Your task to perform on an android device: Search for "macbook" on ebay, select the first entry, and add it to the cart. Image 0: 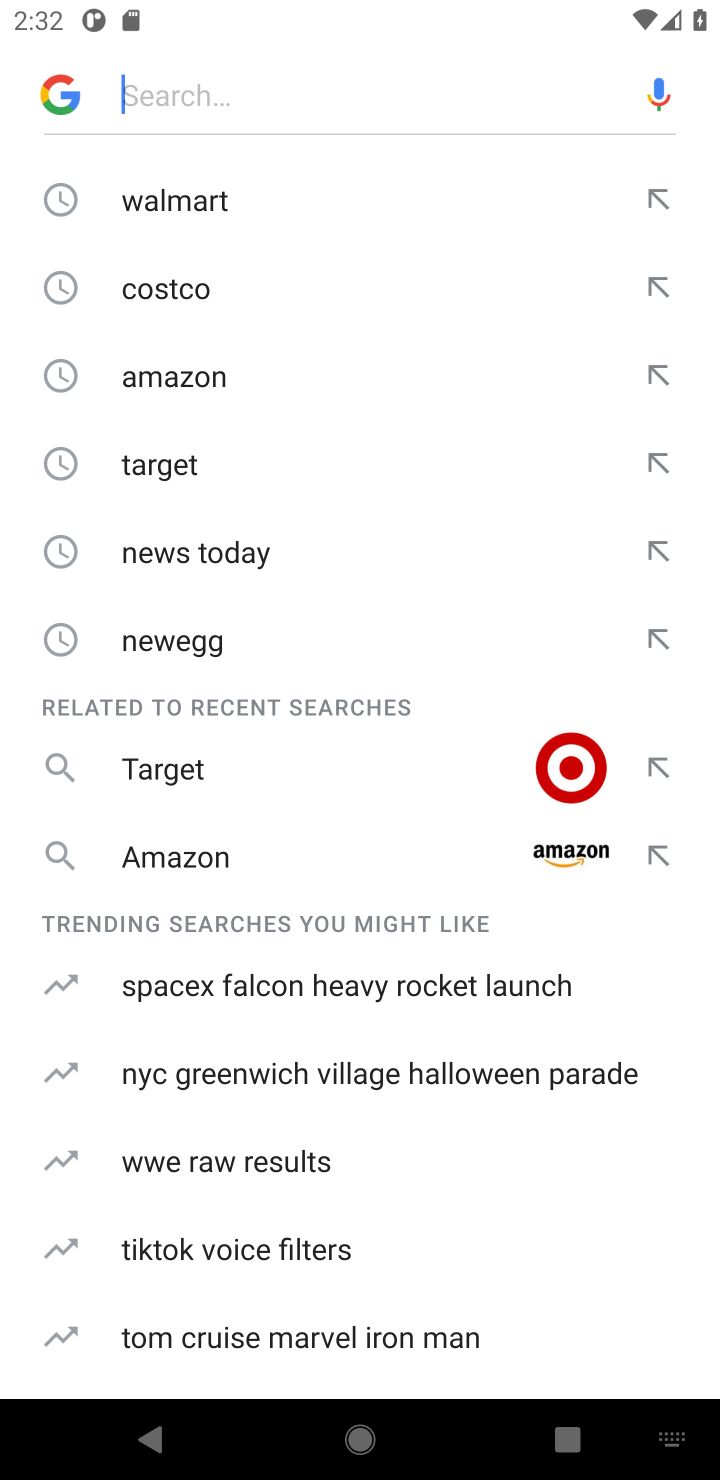
Step 0: type "ebay"
Your task to perform on an android device: Search for "macbook" on ebay, select the first entry, and add it to the cart. Image 1: 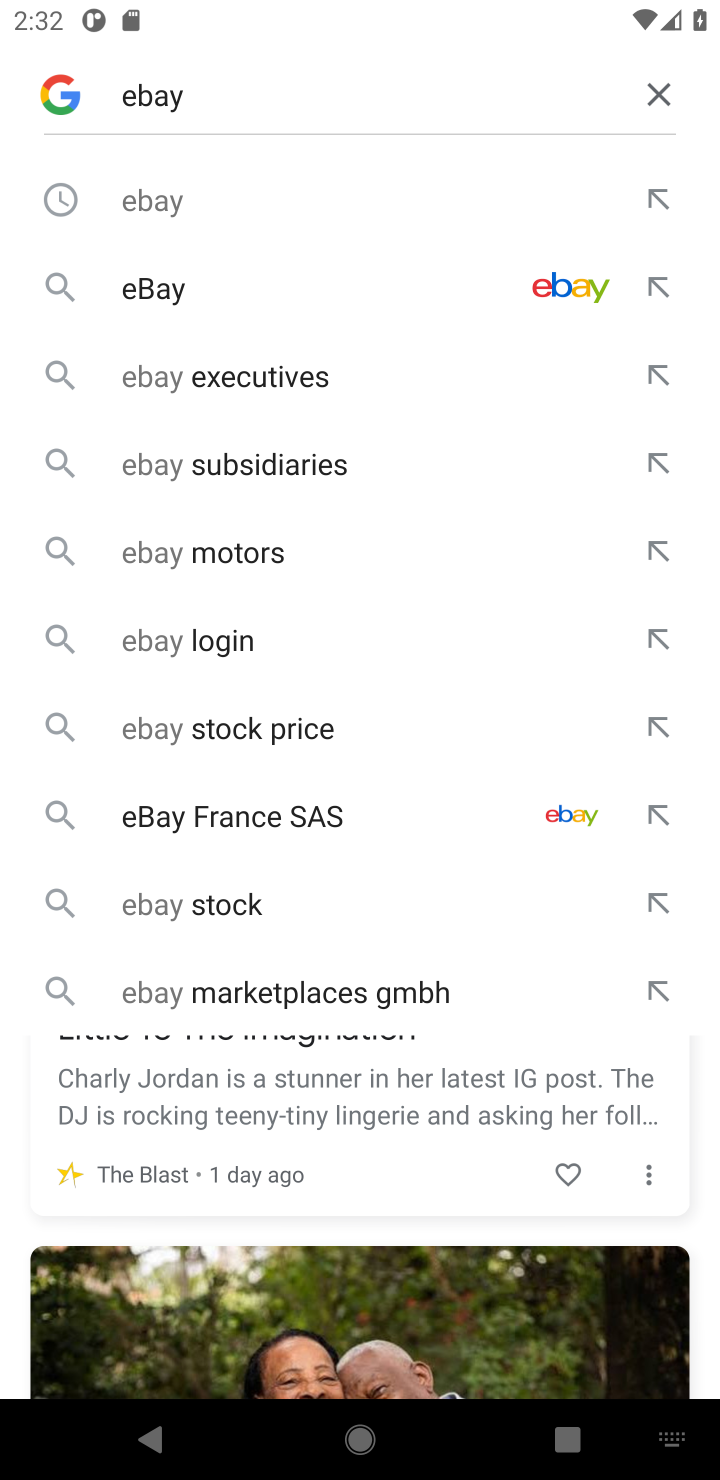
Step 1: type ""
Your task to perform on an android device: Search for "macbook" on ebay, select the first entry, and add it to the cart. Image 2: 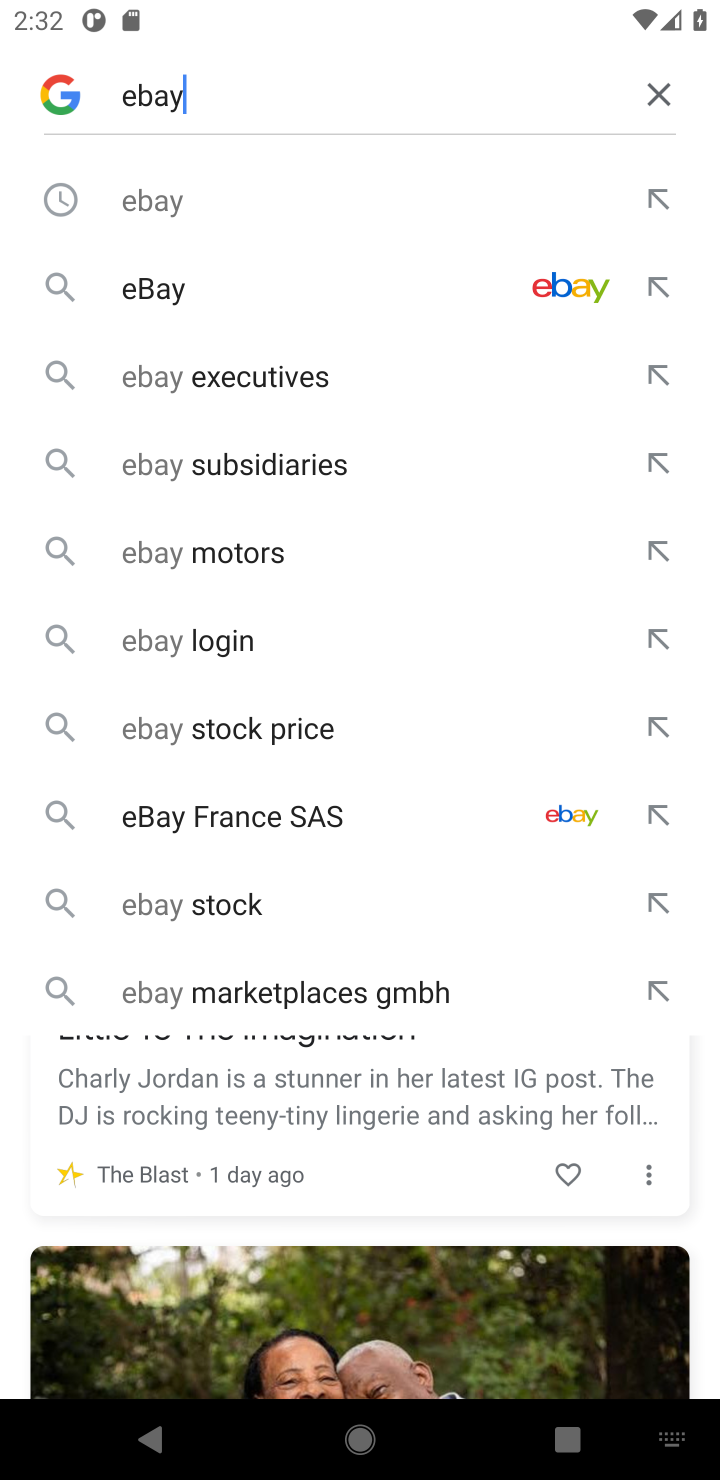
Step 2: click (215, 186)
Your task to perform on an android device: Search for "macbook" on ebay, select the first entry, and add it to the cart. Image 3: 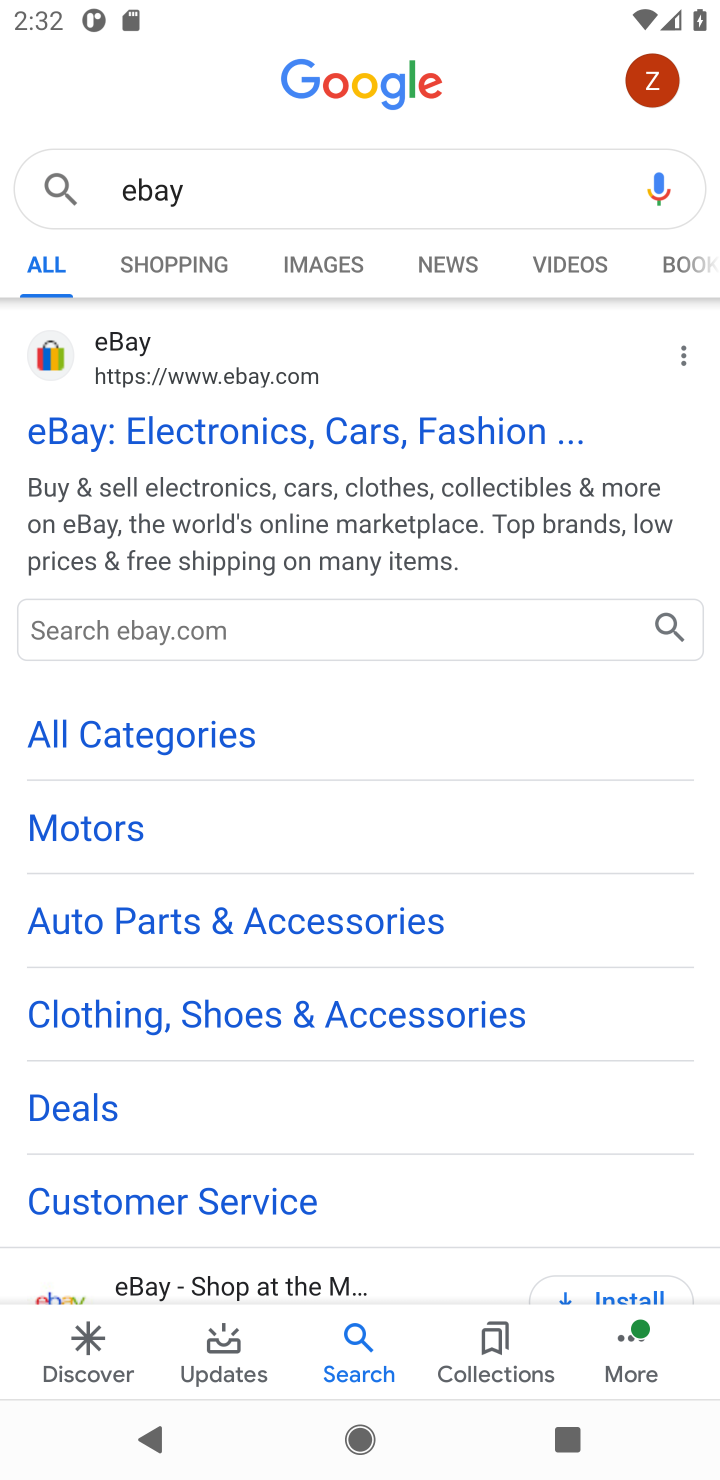
Step 3: click (193, 335)
Your task to perform on an android device: Search for "macbook" on ebay, select the first entry, and add it to the cart. Image 4: 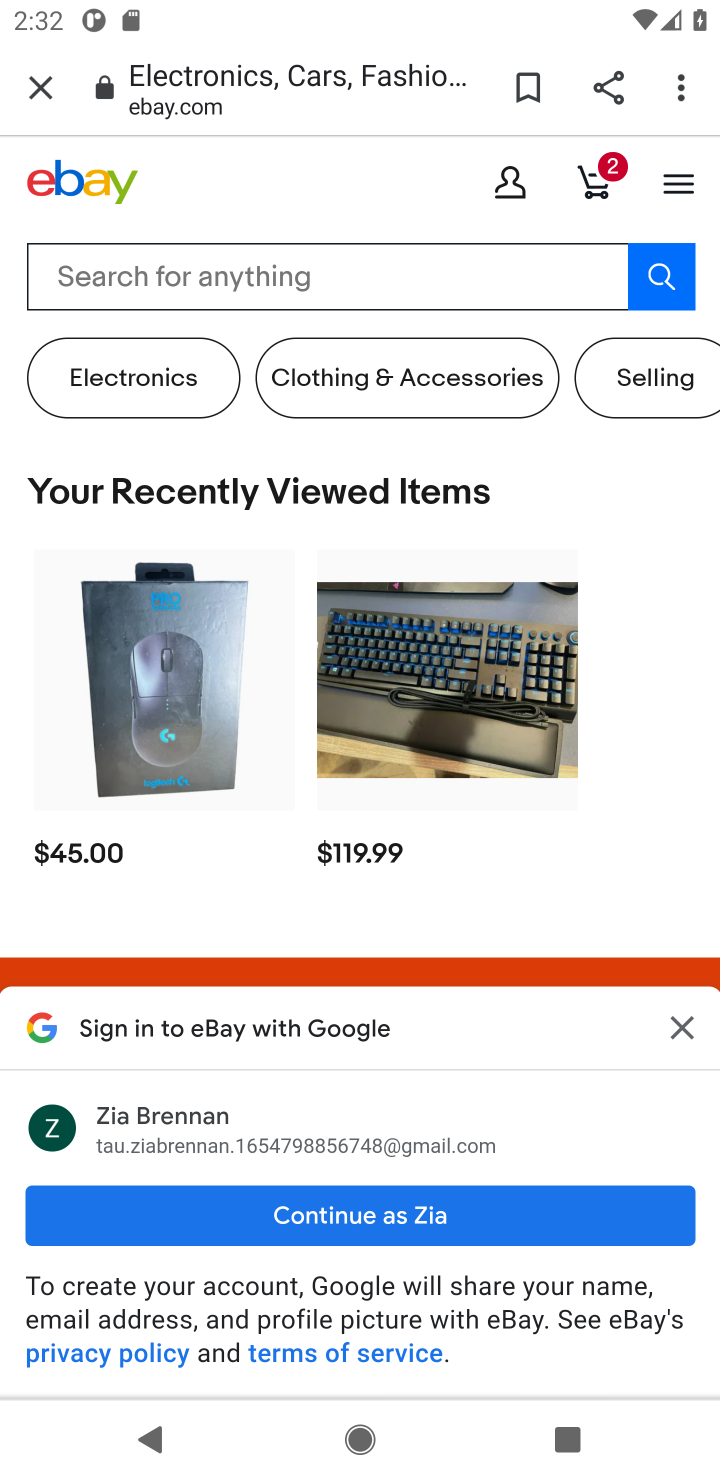
Step 4: click (215, 281)
Your task to perform on an android device: Search for "macbook" on ebay, select the first entry, and add it to the cart. Image 5: 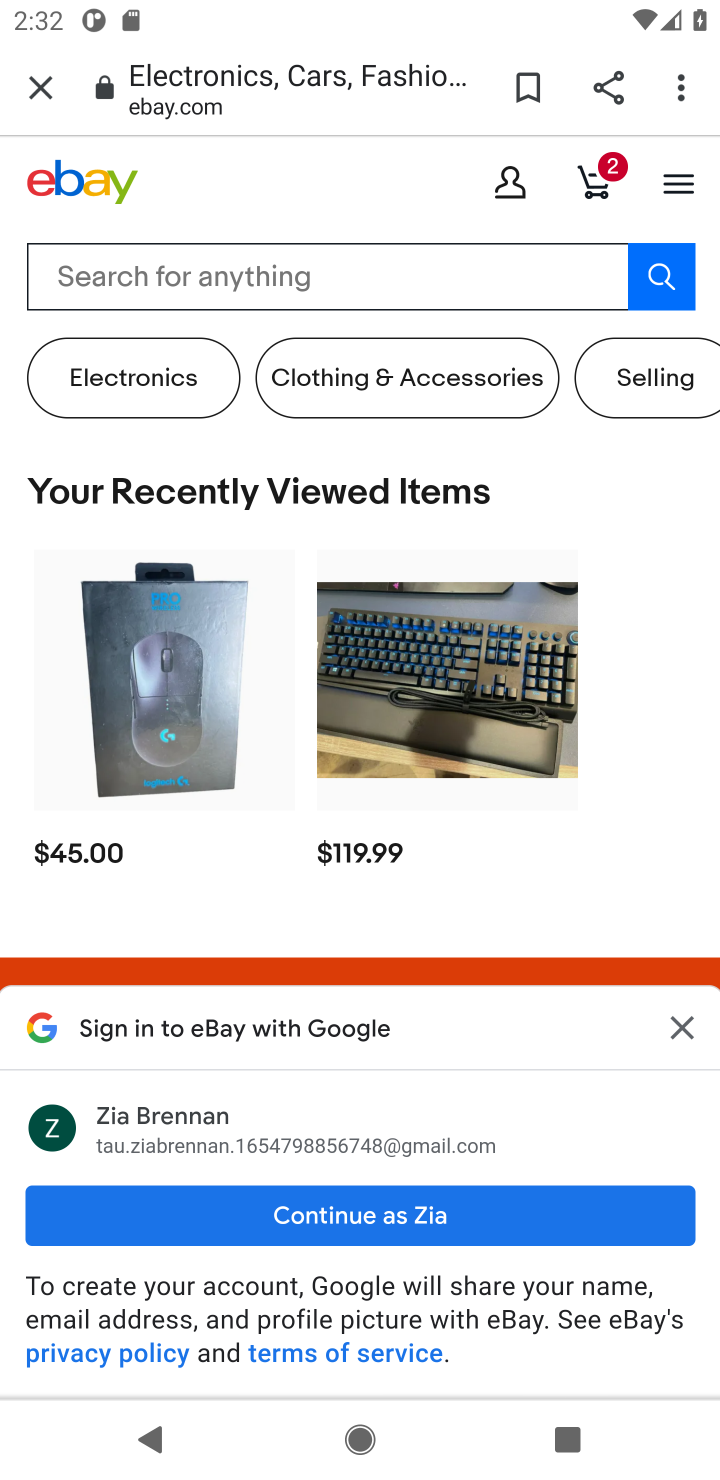
Step 5: click (683, 1026)
Your task to perform on an android device: Search for "macbook" on ebay, select the first entry, and add it to the cart. Image 6: 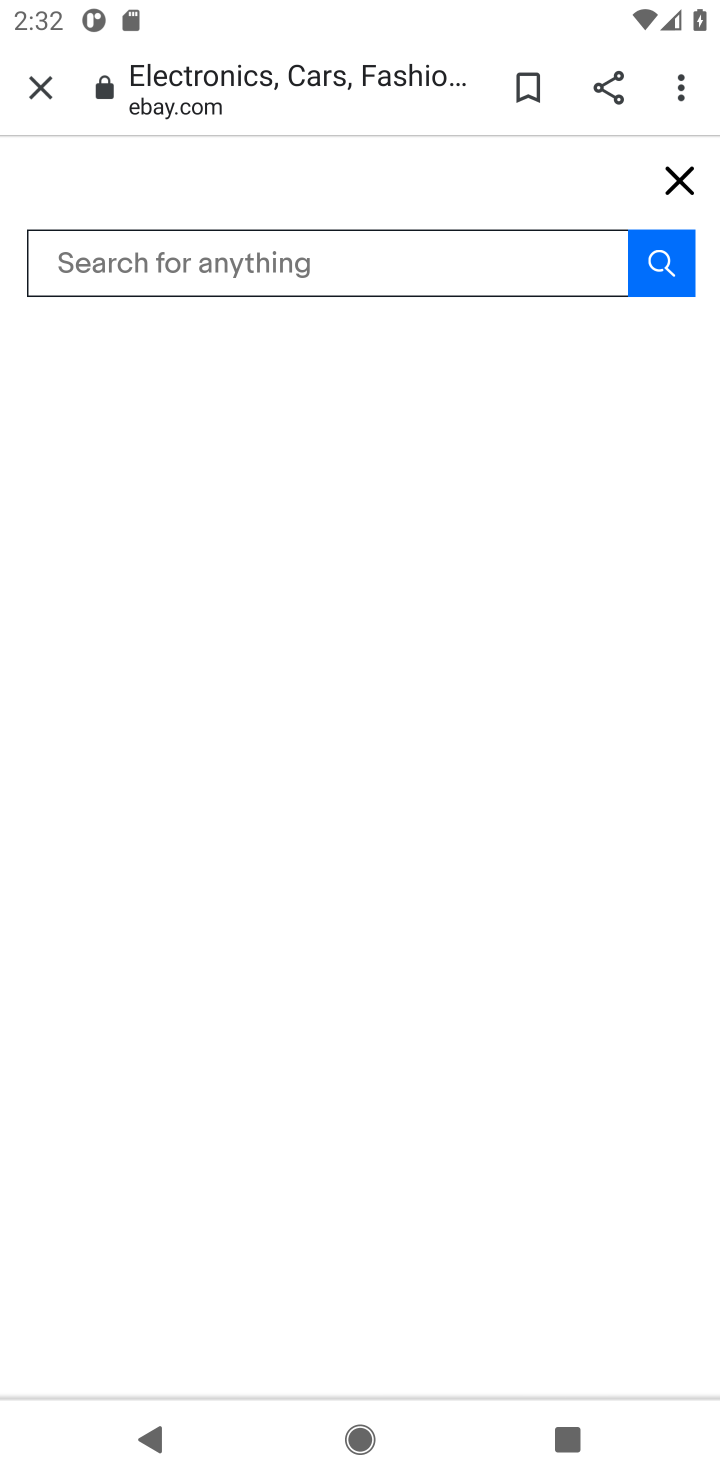
Step 6: click (178, 265)
Your task to perform on an android device: Search for "macbook" on ebay, select the first entry, and add it to the cart. Image 7: 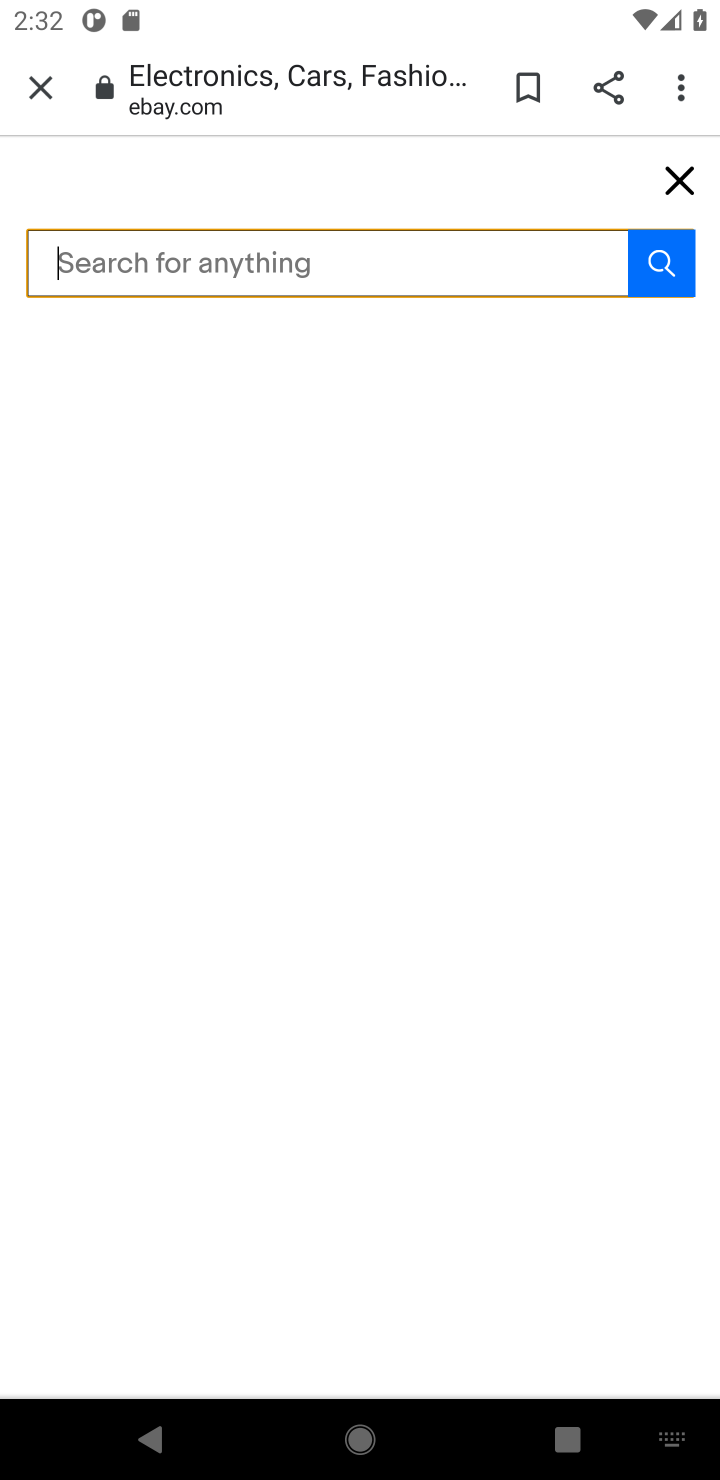
Step 7: type "macbook"
Your task to perform on an android device: Search for "macbook" on ebay, select the first entry, and add it to the cart. Image 8: 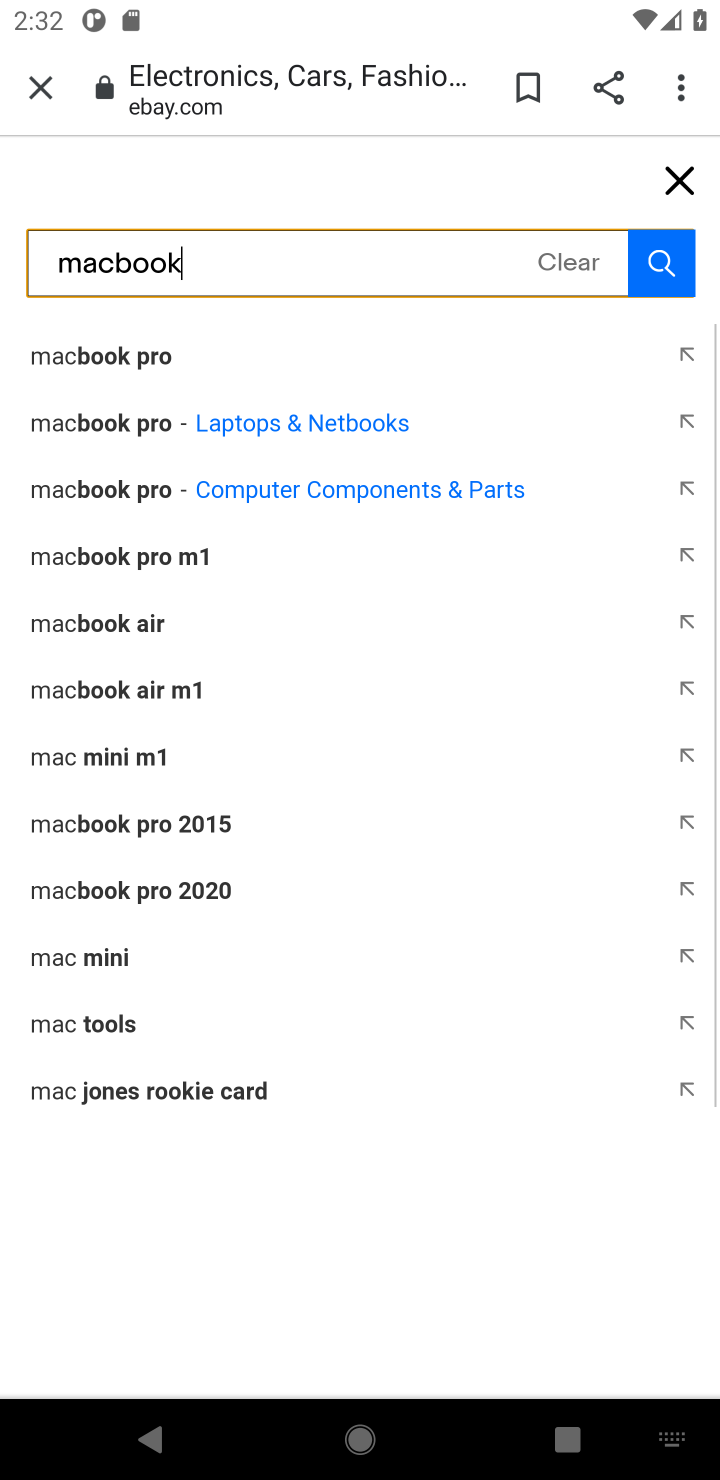
Step 8: type ""
Your task to perform on an android device: Search for "macbook" on ebay, select the first entry, and add it to the cart. Image 9: 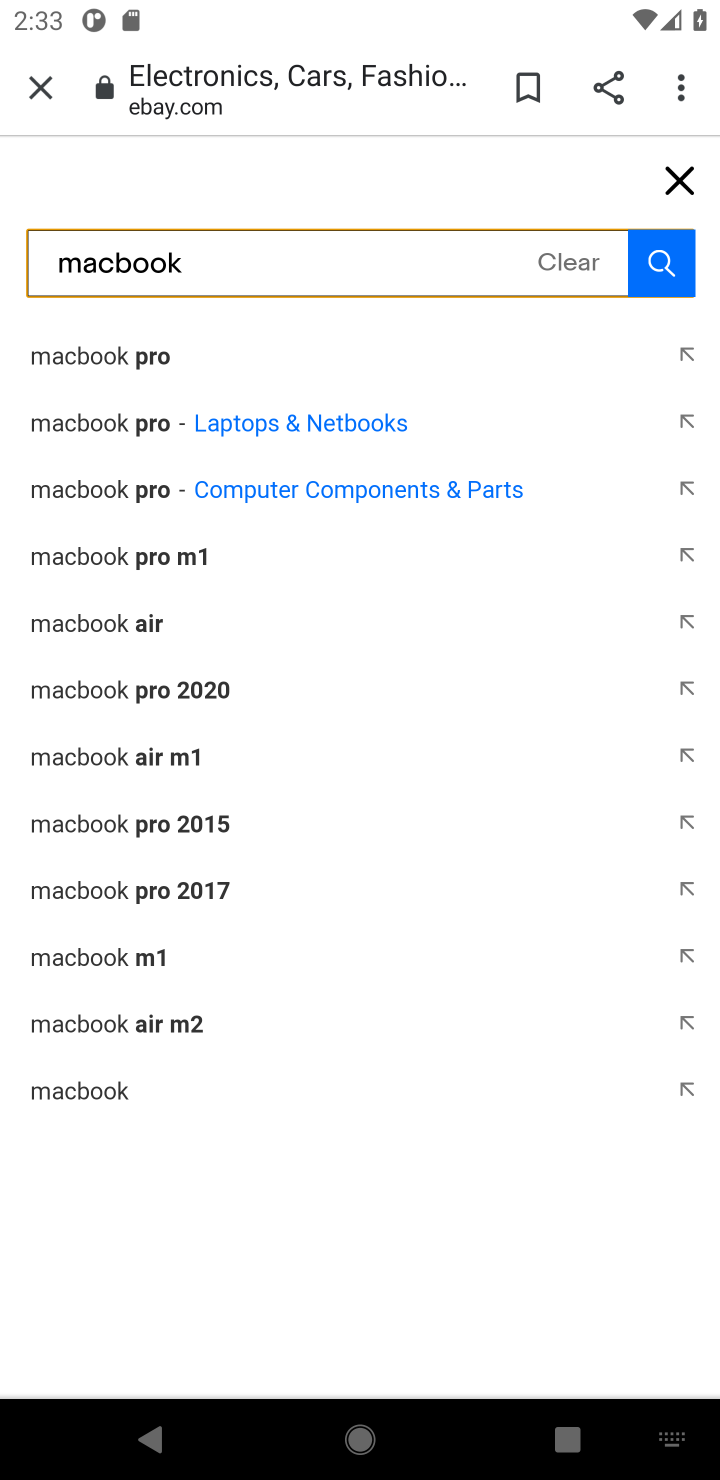
Step 9: click (261, 422)
Your task to perform on an android device: Search for "macbook" on ebay, select the first entry, and add it to the cart. Image 10: 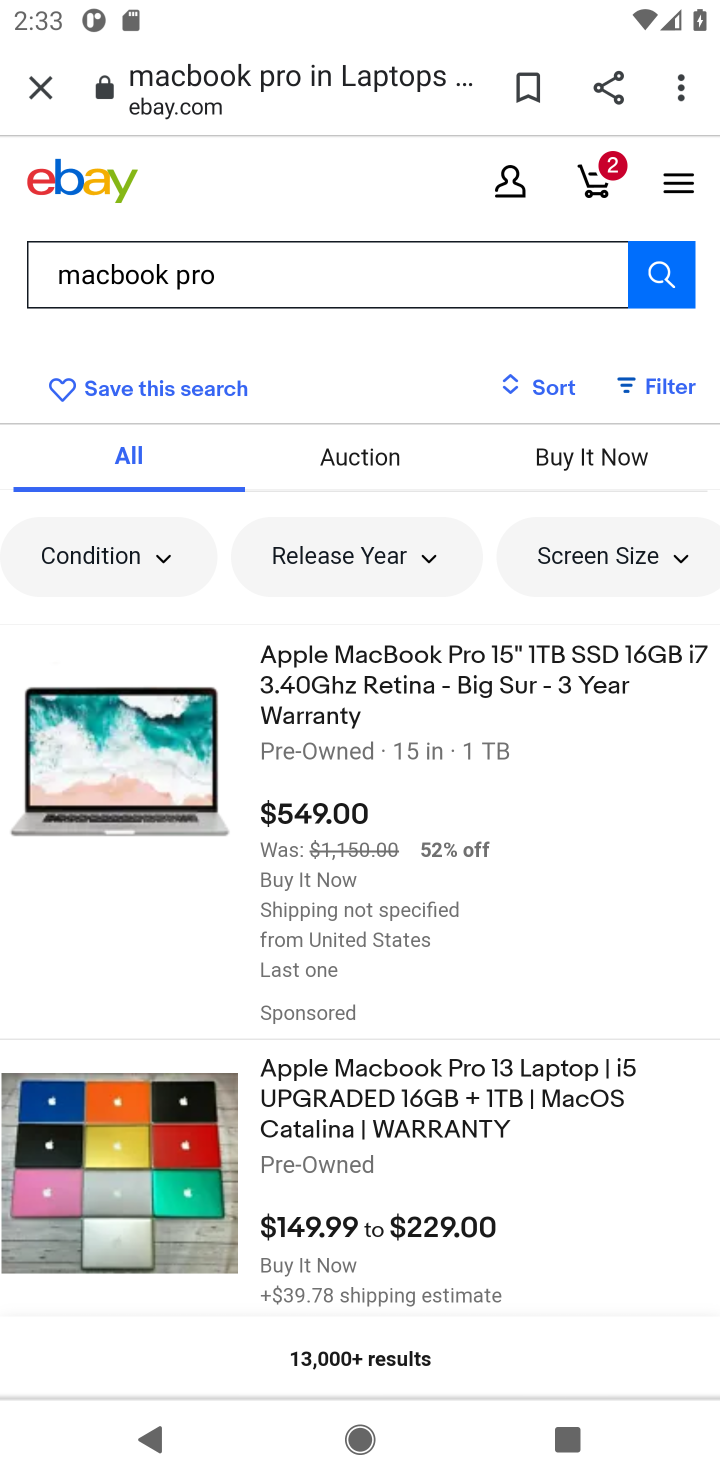
Step 10: click (333, 673)
Your task to perform on an android device: Search for "macbook" on ebay, select the first entry, and add it to the cart. Image 11: 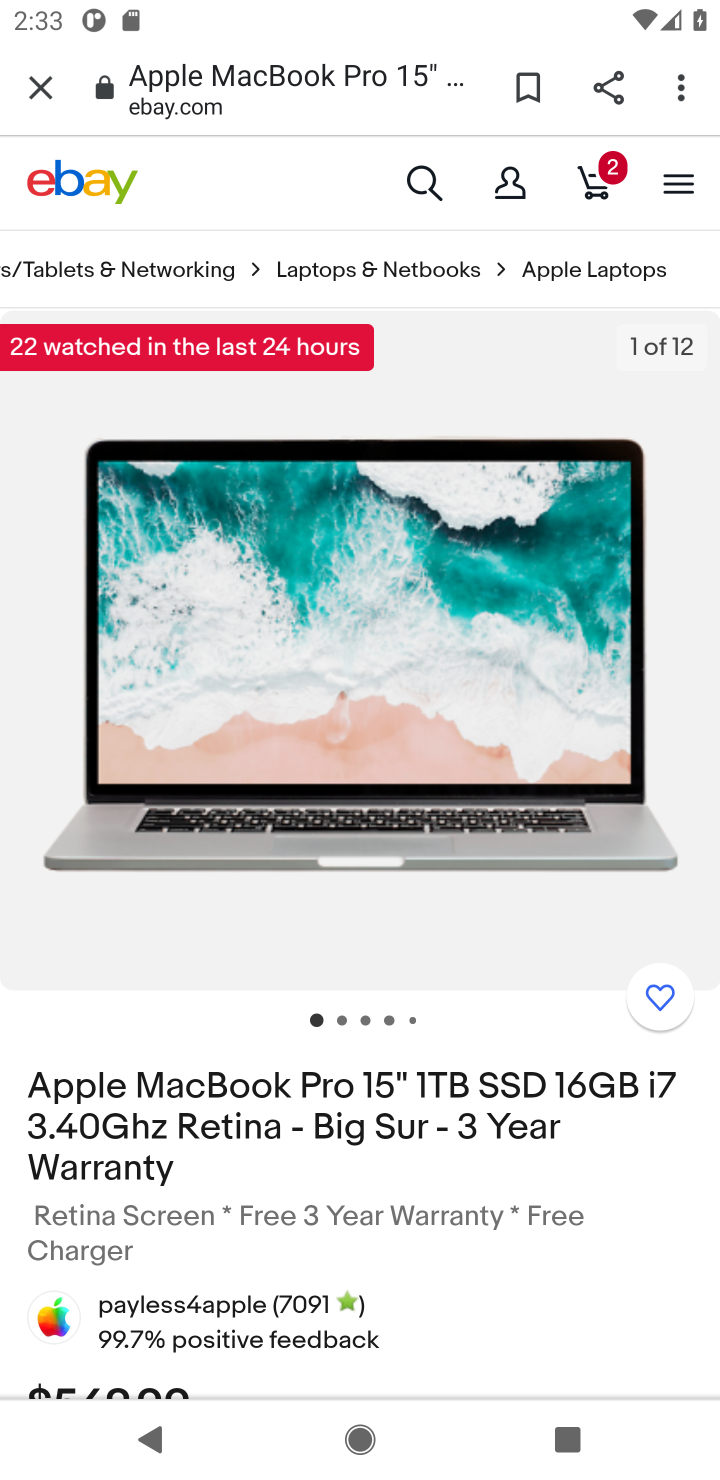
Step 11: drag from (421, 1291) to (540, 358)
Your task to perform on an android device: Search for "macbook" on ebay, select the first entry, and add it to the cart. Image 12: 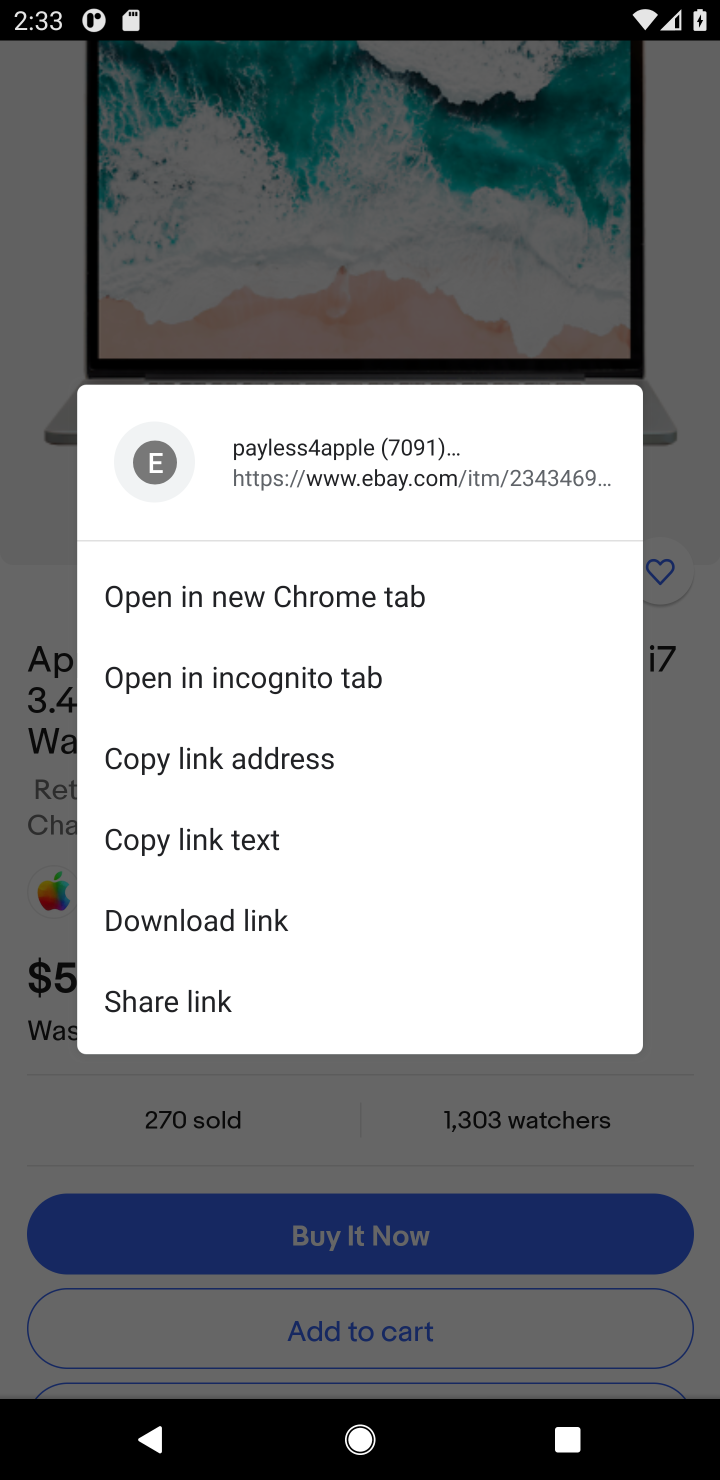
Step 12: click (42, 1094)
Your task to perform on an android device: Search for "macbook" on ebay, select the first entry, and add it to the cart. Image 13: 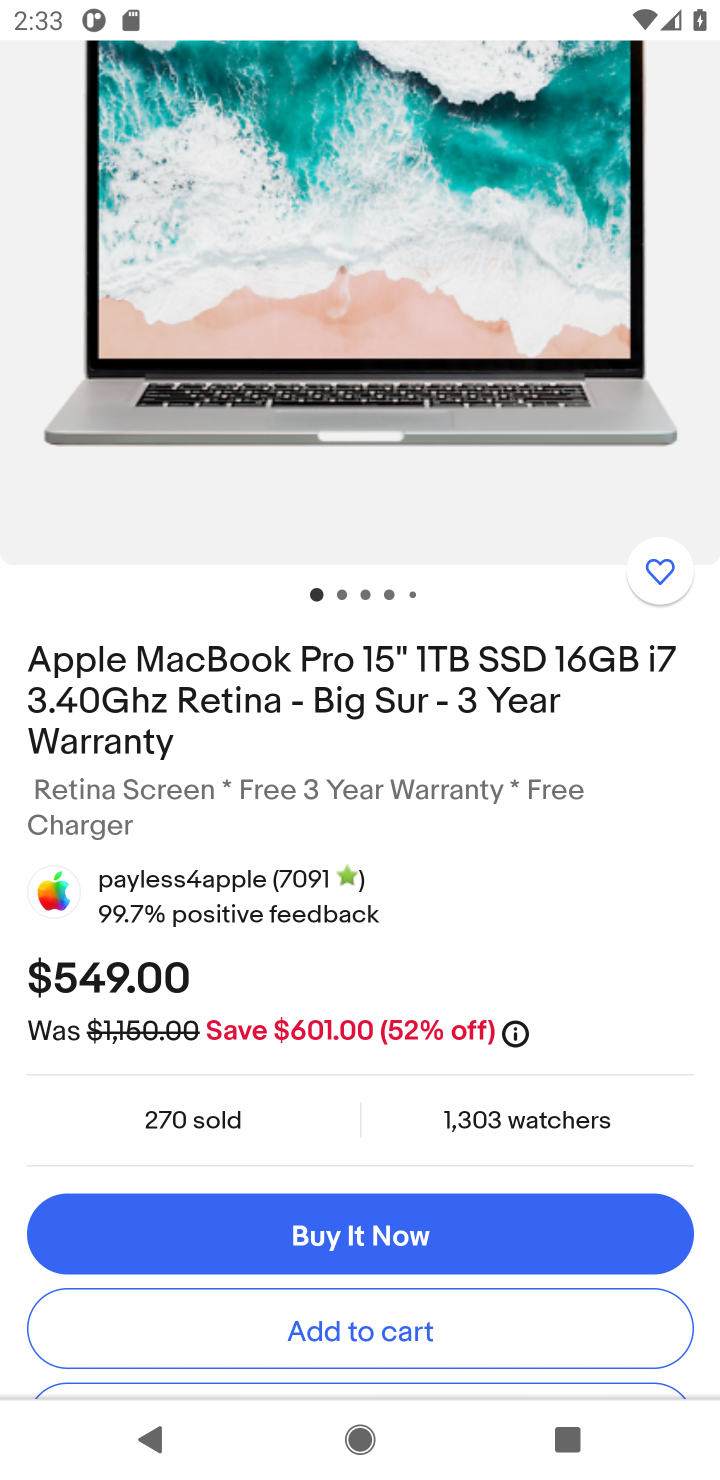
Step 13: drag from (524, 976) to (511, 253)
Your task to perform on an android device: Search for "macbook" on ebay, select the first entry, and add it to the cart. Image 14: 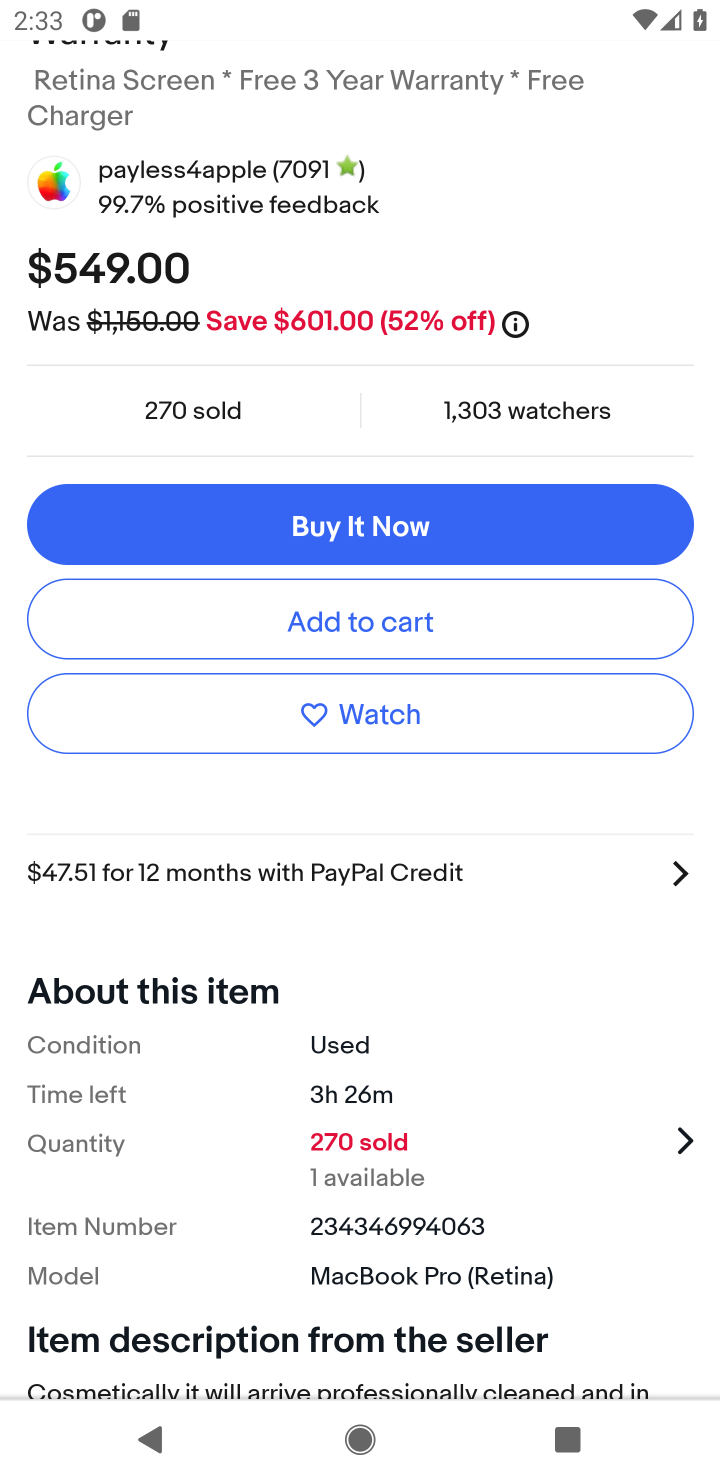
Step 14: click (351, 615)
Your task to perform on an android device: Search for "macbook" on ebay, select the first entry, and add it to the cart. Image 15: 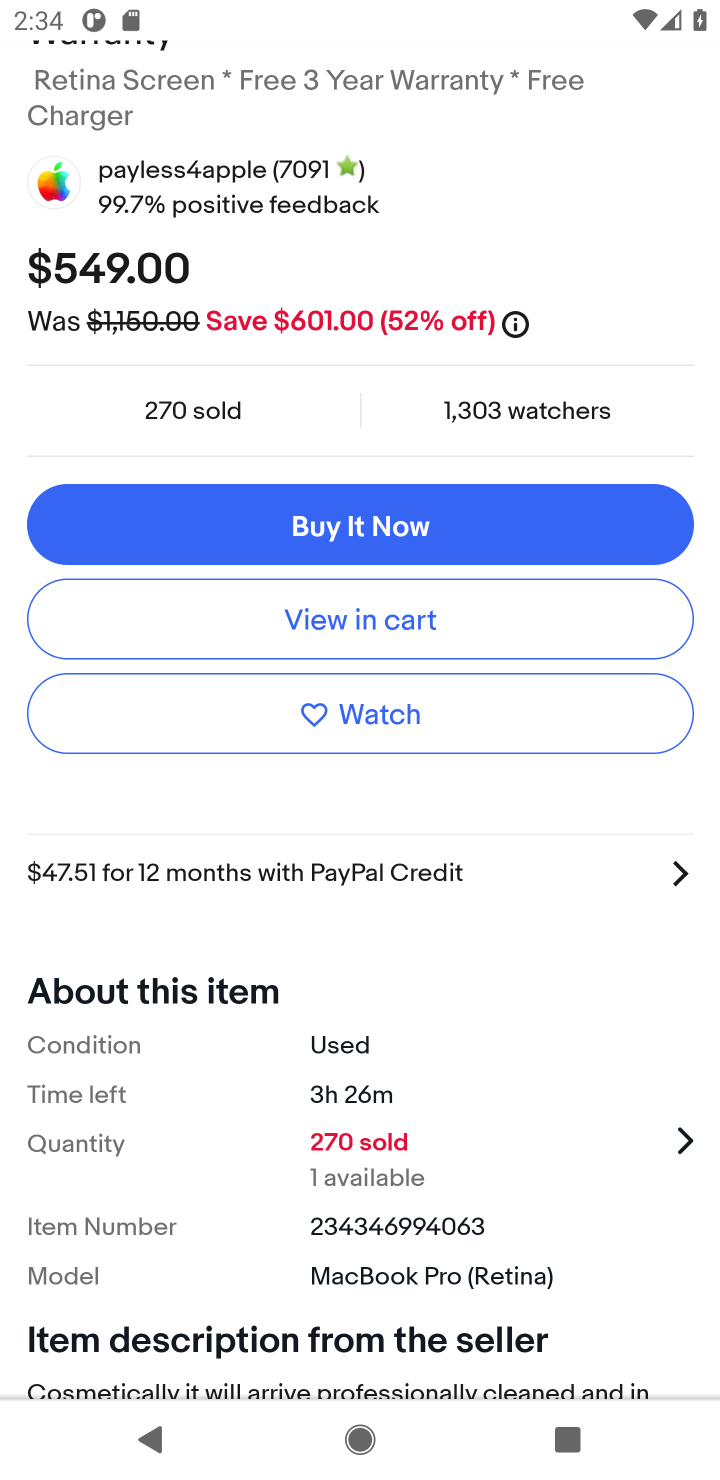
Step 15: click (364, 615)
Your task to perform on an android device: Search for "macbook" on ebay, select the first entry, and add it to the cart. Image 16: 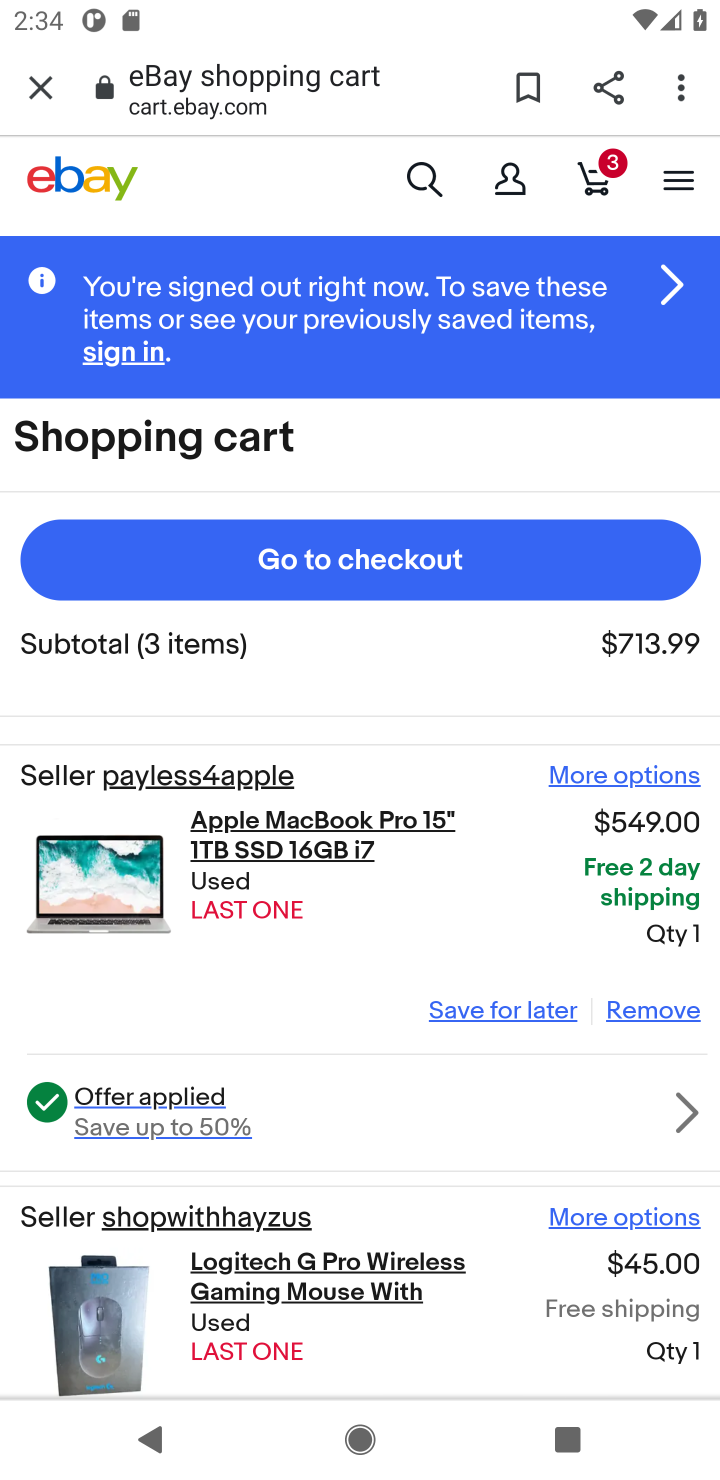
Step 16: task complete